Your task to perform on an android device: Search for dining room chairs on Crate & Barrel Image 0: 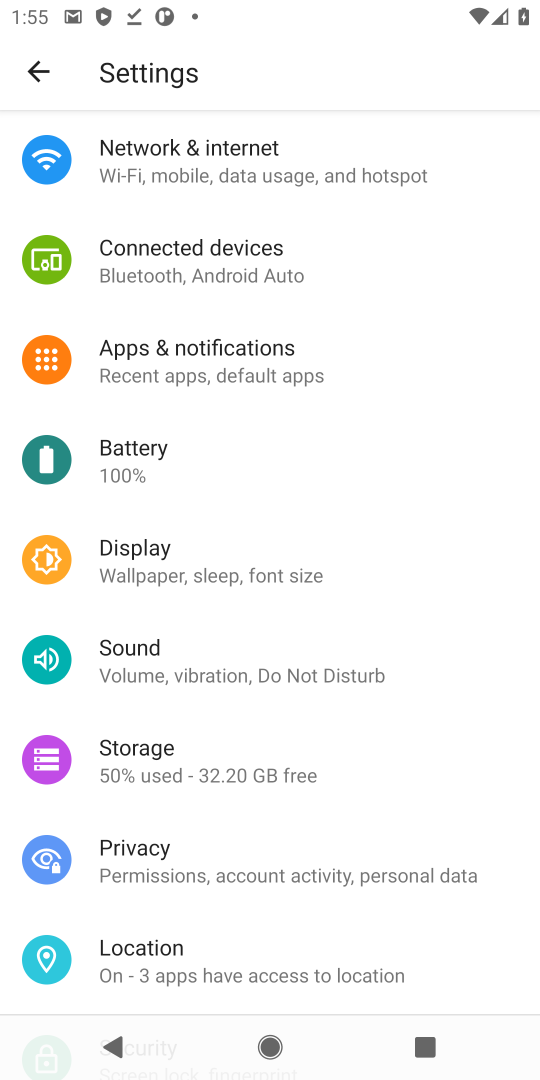
Step 0: press home button
Your task to perform on an android device: Search for dining room chairs on Crate & Barrel Image 1: 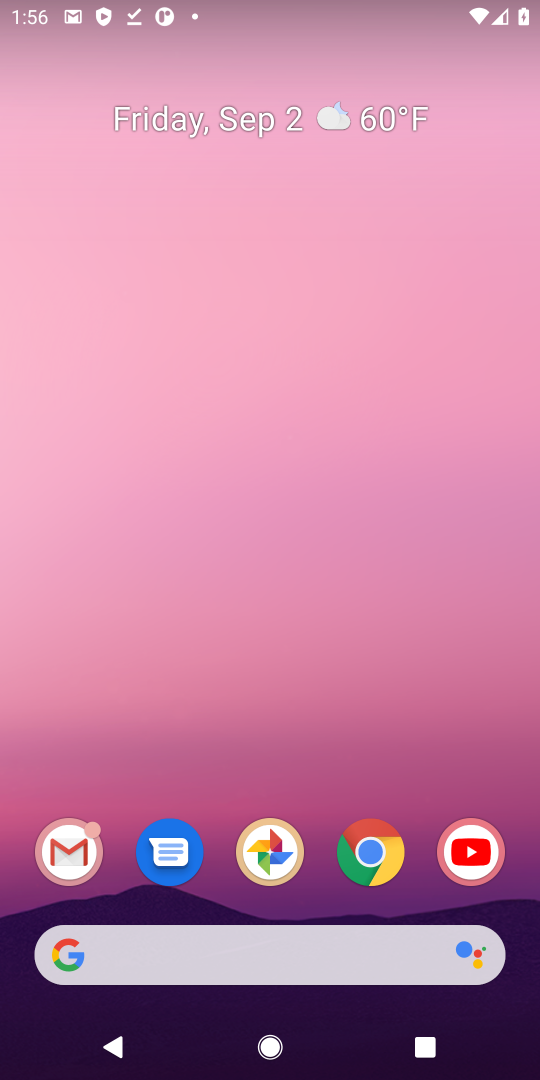
Step 1: drag from (308, 731) to (262, 4)
Your task to perform on an android device: Search for dining room chairs on Crate & Barrel Image 2: 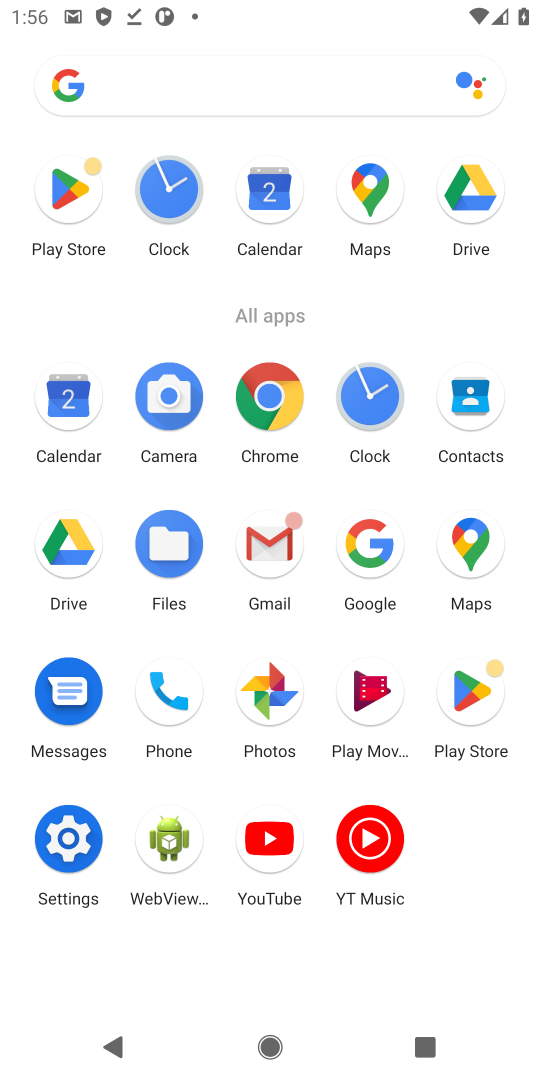
Step 2: click (270, 390)
Your task to perform on an android device: Search for dining room chairs on Crate & Barrel Image 3: 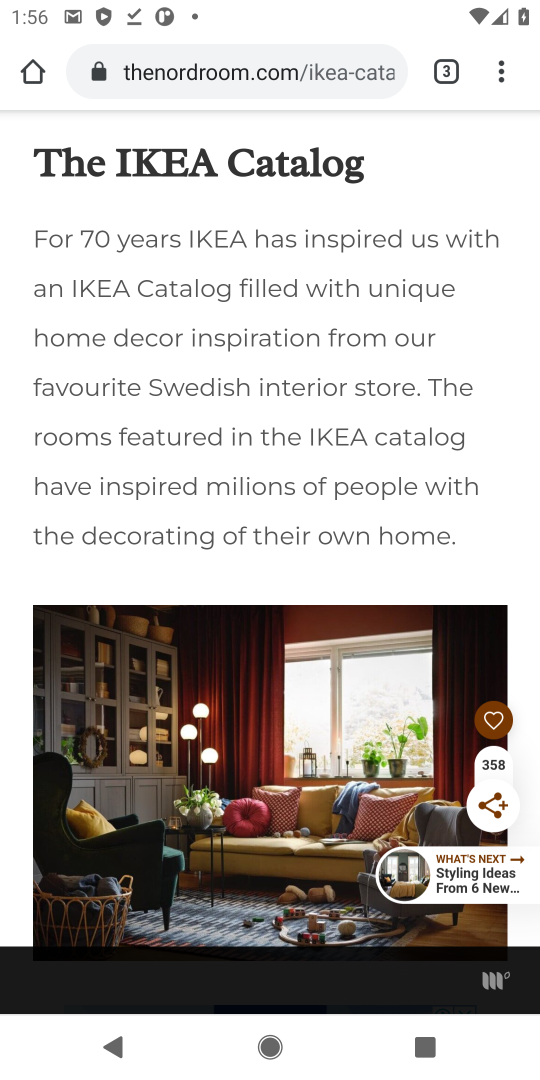
Step 3: click (286, 93)
Your task to perform on an android device: Search for dining room chairs on Crate & Barrel Image 4: 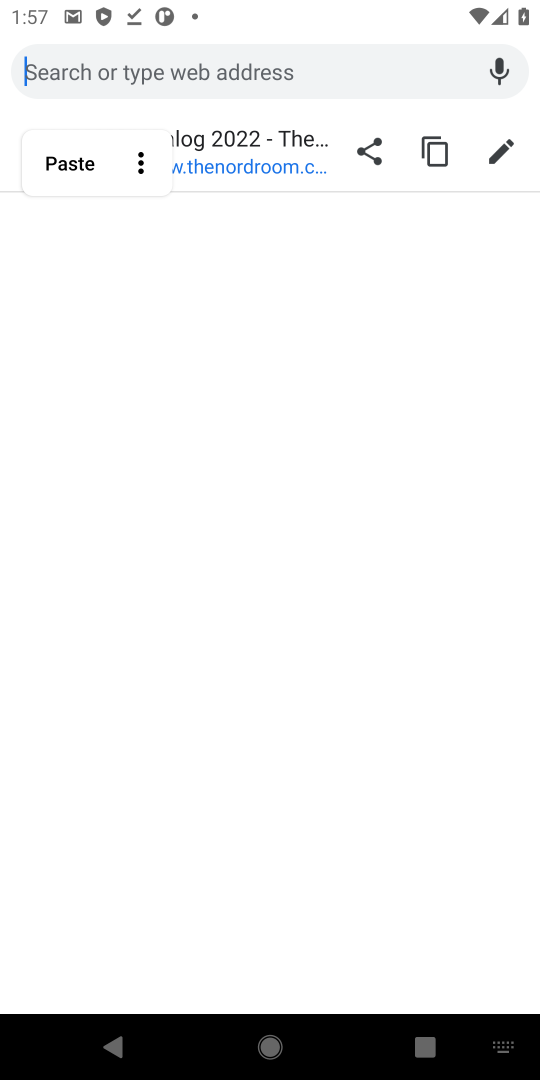
Step 4: type "dining room chairs on Crate & Barrel"
Your task to perform on an android device: Search for dining room chairs on Crate & Barrel Image 5: 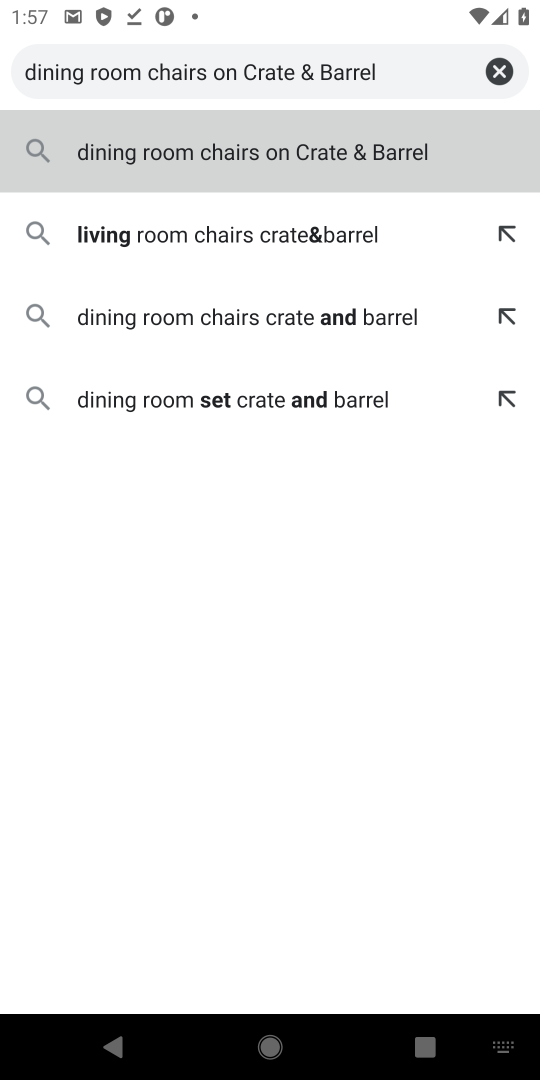
Step 5: press enter
Your task to perform on an android device: Search for dining room chairs on Crate & Barrel Image 6: 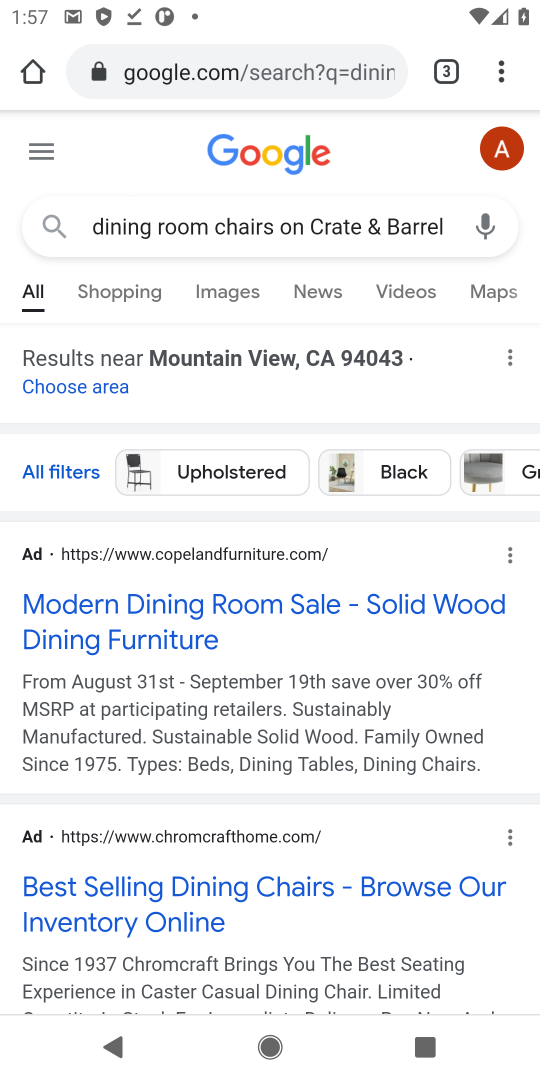
Step 6: drag from (239, 849) to (241, 319)
Your task to perform on an android device: Search for dining room chairs on Crate & Barrel Image 7: 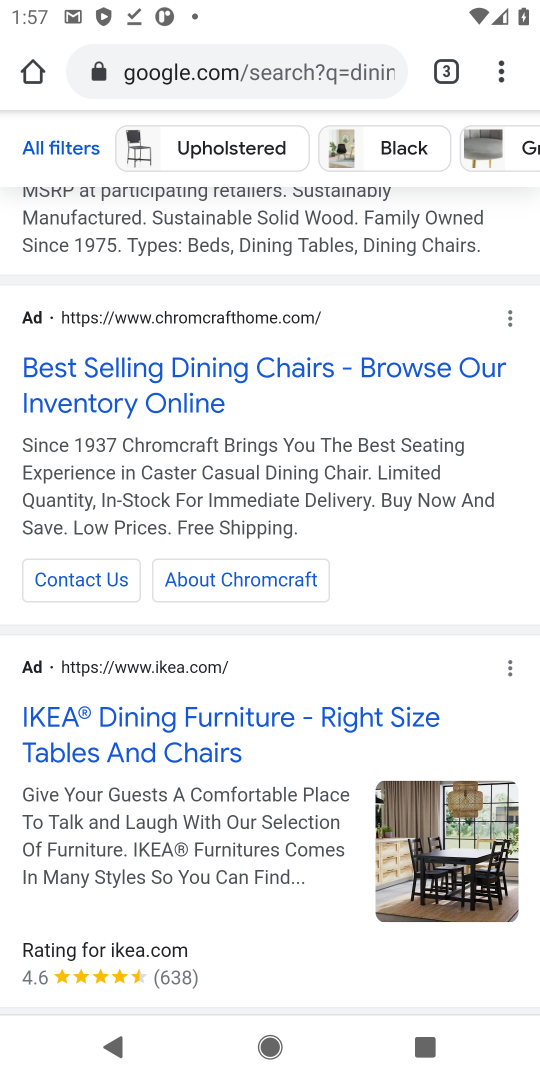
Step 7: drag from (181, 254) to (186, 198)
Your task to perform on an android device: Search for dining room chairs on Crate & Barrel Image 8: 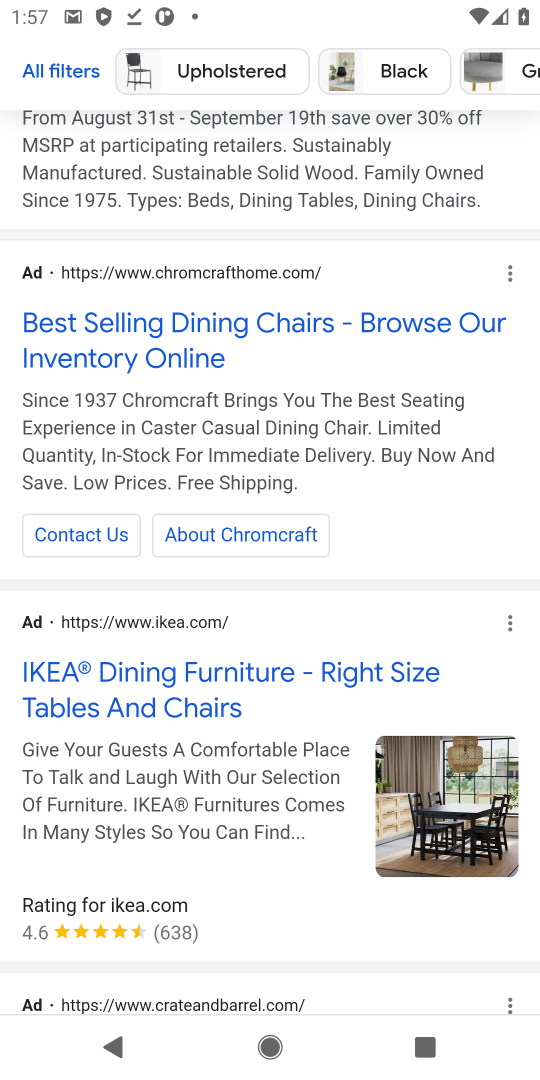
Step 8: drag from (301, 884) to (286, 148)
Your task to perform on an android device: Search for dining room chairs on Crate & Barrel Image 9: 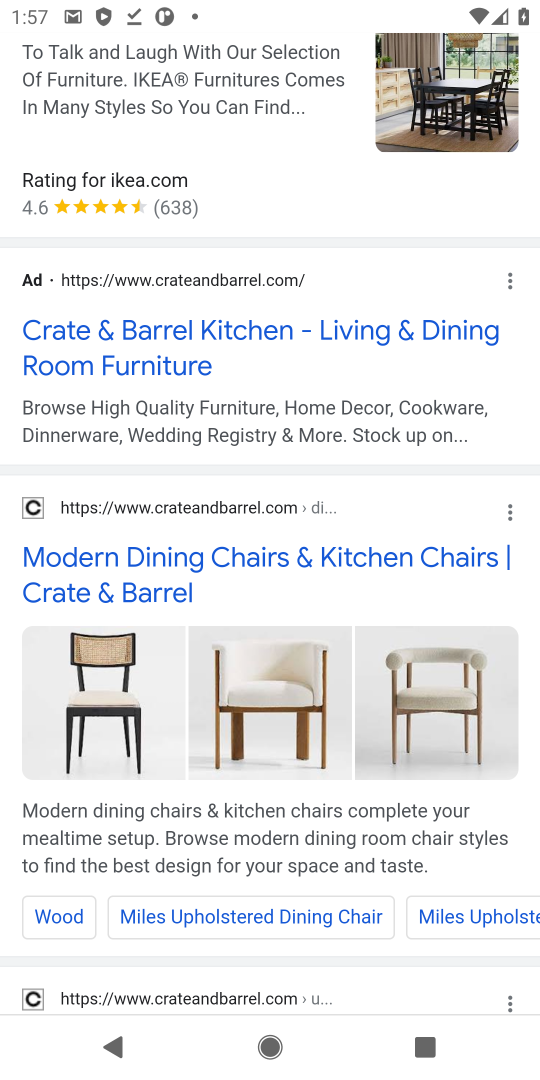
Step 9: click (126, 582)
Your task to perform on an android device: Search for dining room chairs on Crate & Barrel Image 10: 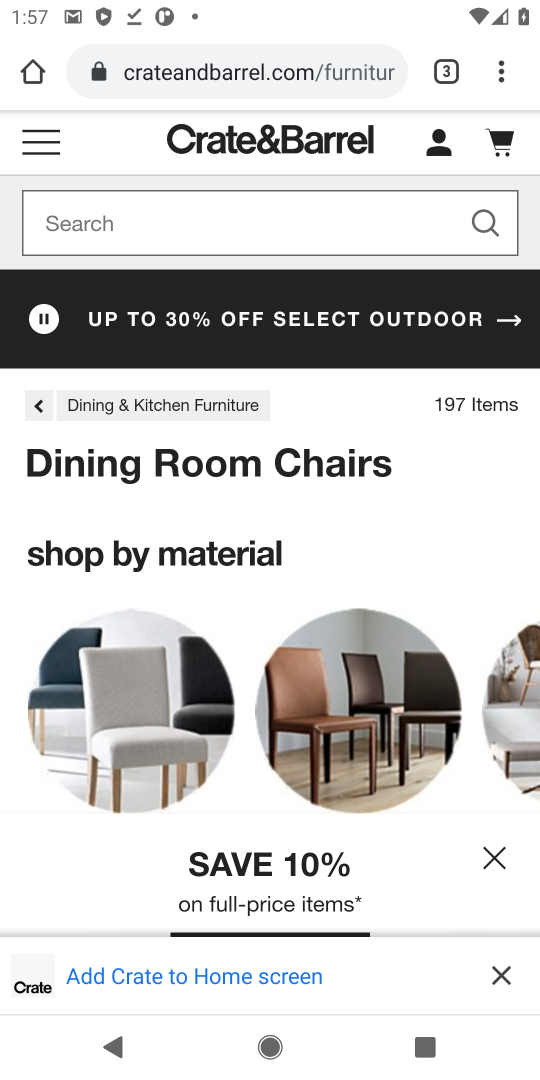
Step 10: task complete